Your task to perform on an android device: Go to wifi settings Image 0: 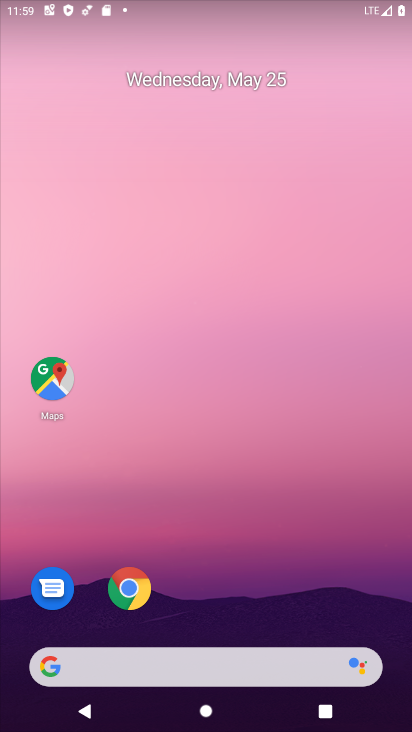
Step 0: drag from (224, 561) to (195, 40)
Your task to perform on an android device: Go to wifi settings Image 1: 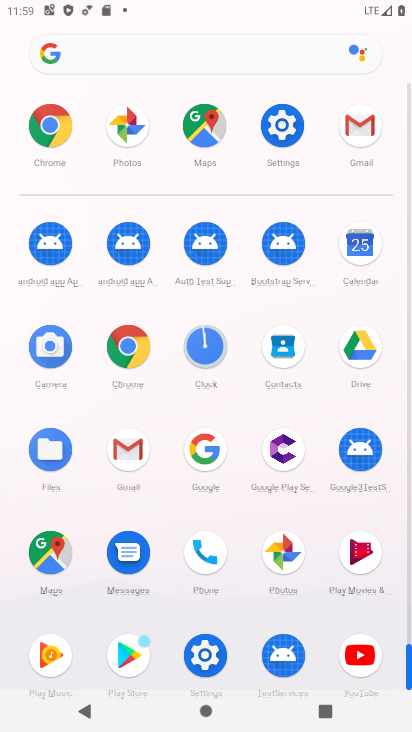
Step 1: drag from (7, 592) to (34, 258)
Your task to perform on an android device: Go to wifi settings Image 2: 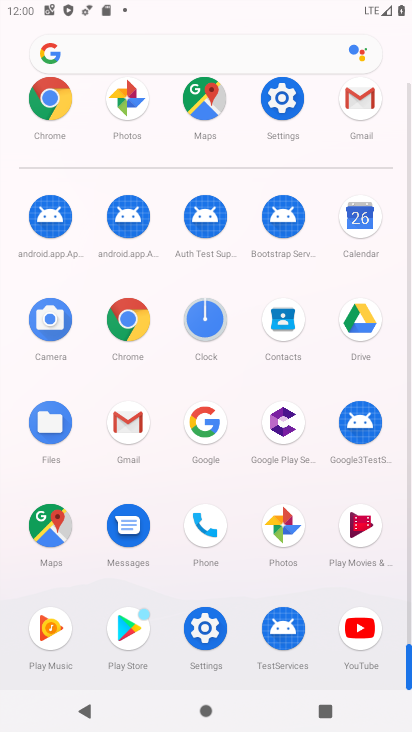
Step 2: click (205, 627)
Your task to perform on an android device: Go to wifi settings Image 3: 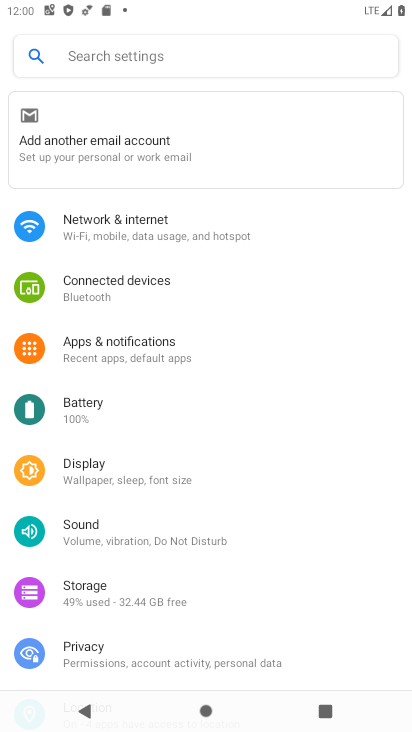
Step 3: drag from (223, 588) to (238, 193)
Your task to perform on an android device: Go to wifi settings Image 4: 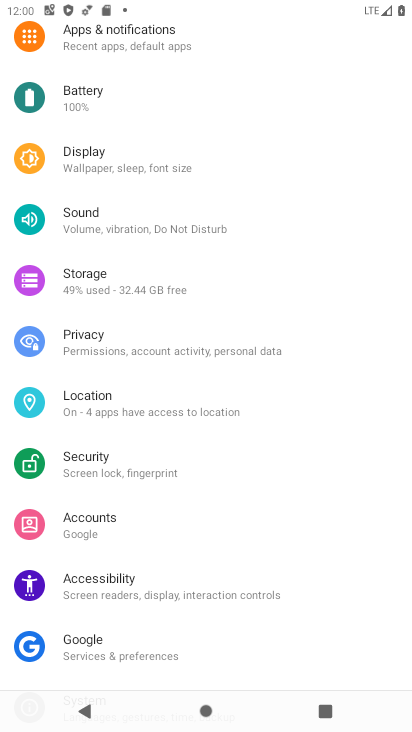
Step 4: drag from (233, 106) to (211, 620)
Your task to perform on an android device: Go to wifi settings Image 5: 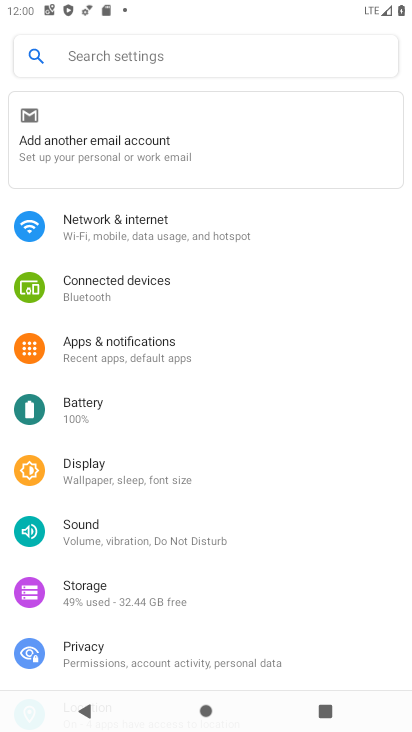
Step 5: click (175, 229)
Your task to perform on an android device: Go to wifi settings Image 6: 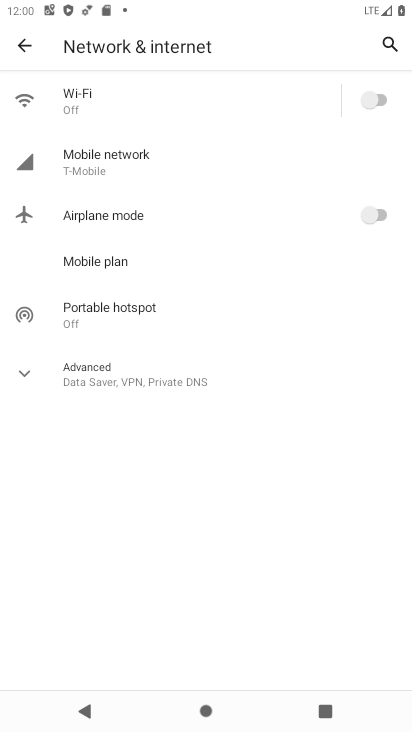
Step 6: click (120, 100)
Your task to perform on an android device: Go to wifi settings Image 7: 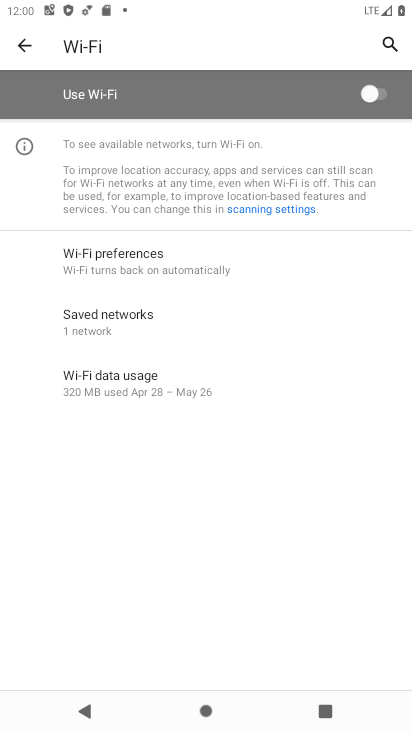
Step 7: task complete